Your task to perform on an android device: open app "Grab" (install if not already installed) Image 0: 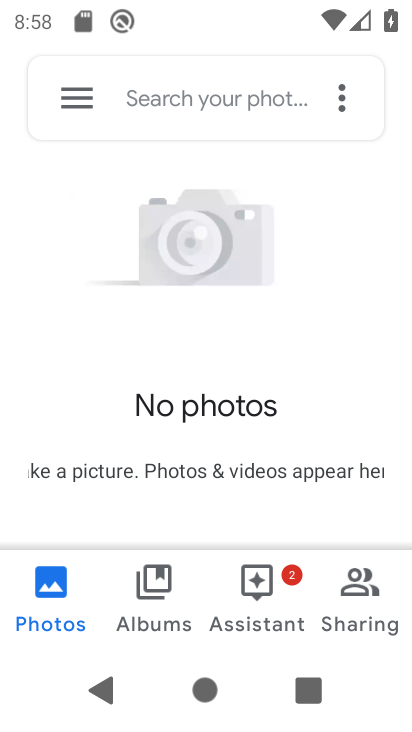
Step 0: press home button
Your task to perform on an android device: open app "Grab" (install if not already installed) Image 1: 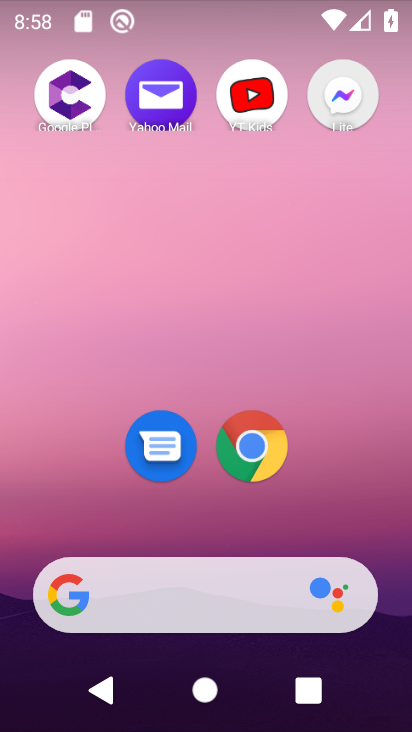
Step 1: drag from (192, 529) to (162, 114)
Your task to perform on an android device: open app "Grab" (install if not already installed) Image 2: 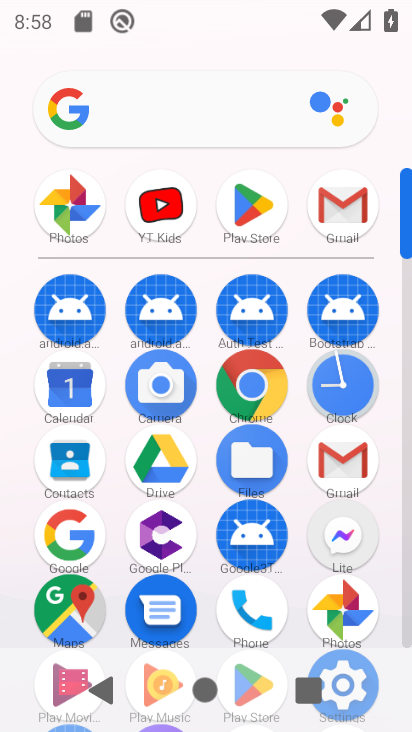
Step 2: click (264, 205)
Your task to perform on an android device: open app "Grab" (install if not already installed) Image 3: 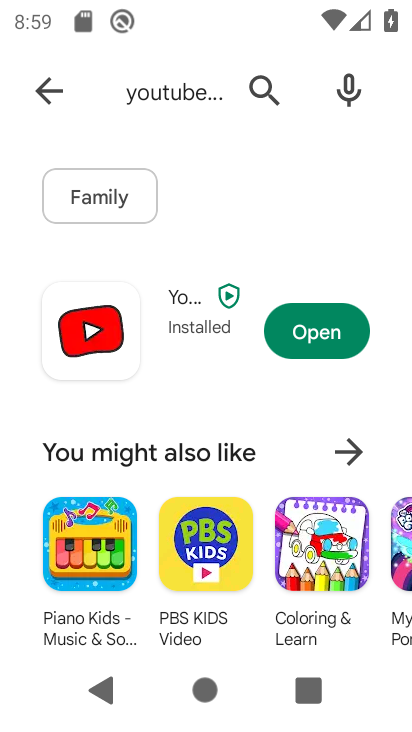
Step 3: click (274, 77)
Your task to perform on an android device: open app "Grab" (install if not already installed) Image 4: 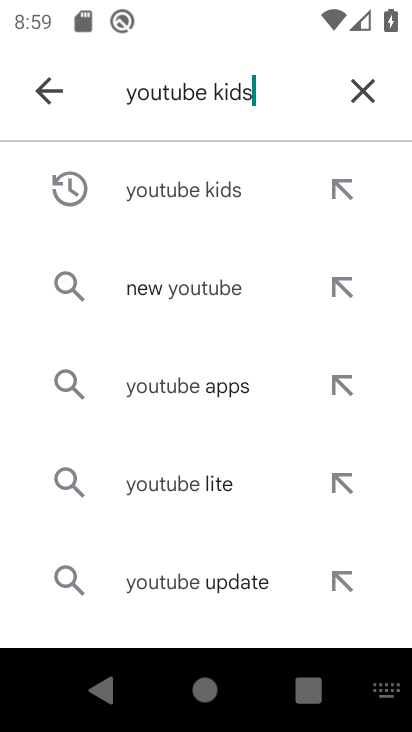
Step 4: click (363, 89)
Your task to perform on an android device: open app "Grab" (install if not already installed) Image 5: 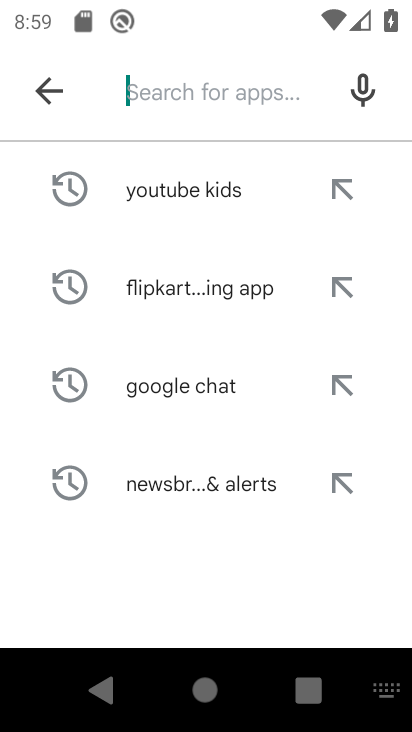
Step 5: type "Grab"
Your task to perform on an android device: open app "Grab" (install if not already installed) Image 6: 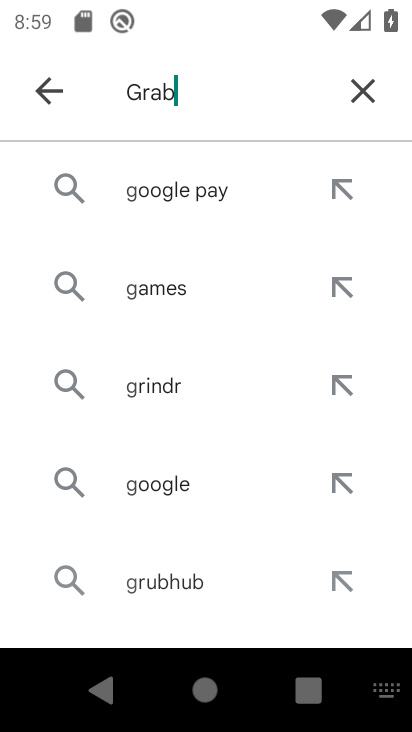
Step 6: type ""
Your task to perform on an android device: open app "Grab" (install if not already installed) Image 7: 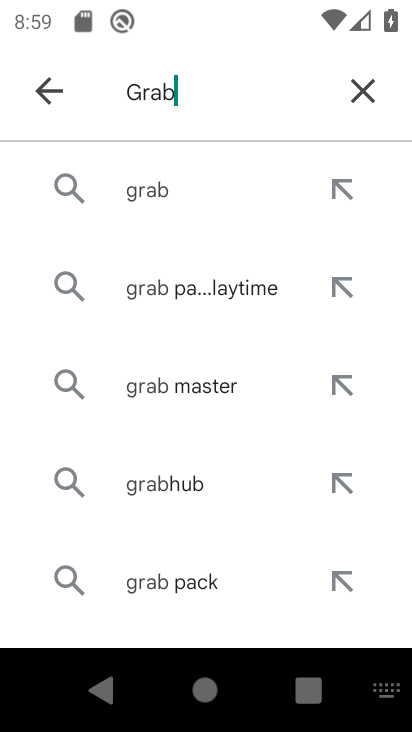
Step 7: click (187, 190)
Your task to perform on an android device: open app "Grab" (install if not already installed) Image 8: 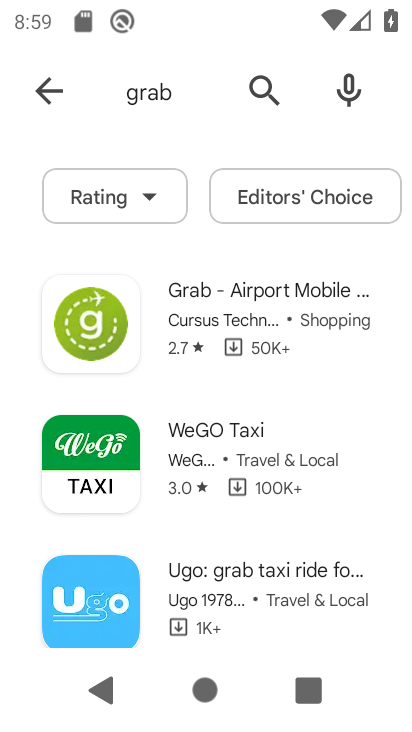
Step 8: click (267, 323)
Your task to perform on an android device: open app "Grab" (install if not already installed) Image 9: 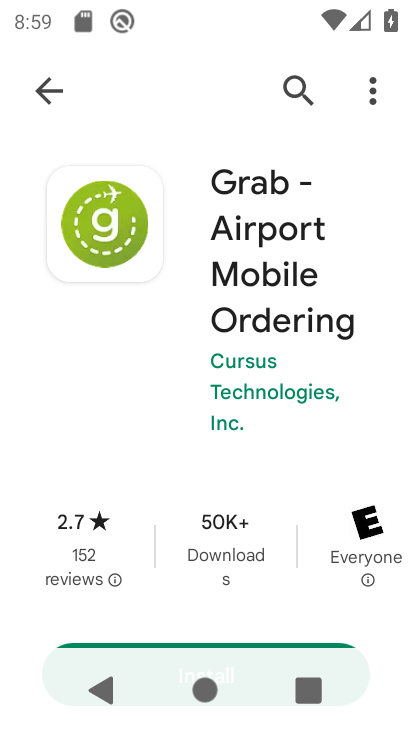
Step 9: drag from (168, 509) to (201, 200)
Your task to perform on an android device: open app "Grab" (install if not already installed) Image 10: 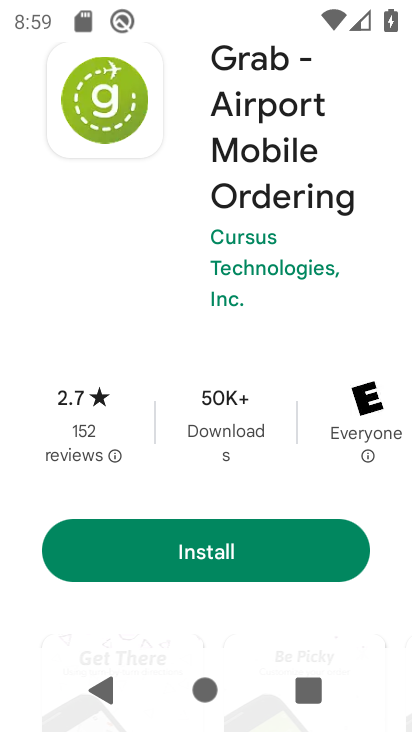
Step 10: click (201, 556)
Your task to perform on an android device: open app "Grab" (install if not already installed) Image 11: 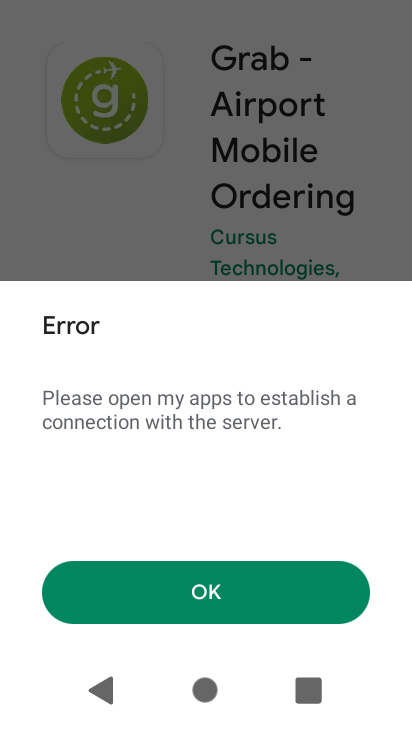
Step 11: click (322, 573)
Your task to perform on an android device: open app "Grab" (install if not already installed) Image 12: 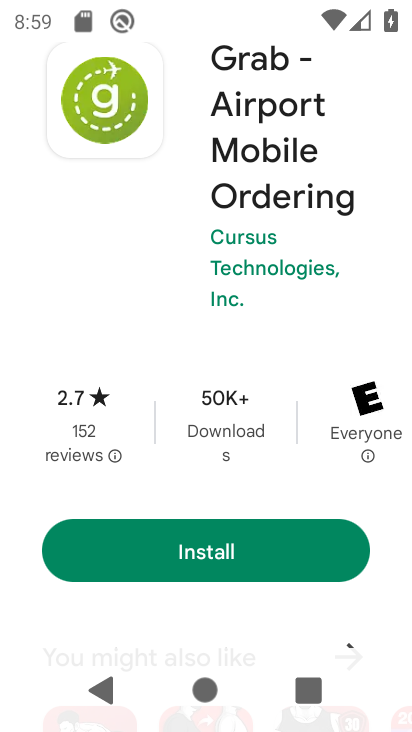
Step 12: task complete